Your task to perform on an android device: open app "PlayWell" Image 0: 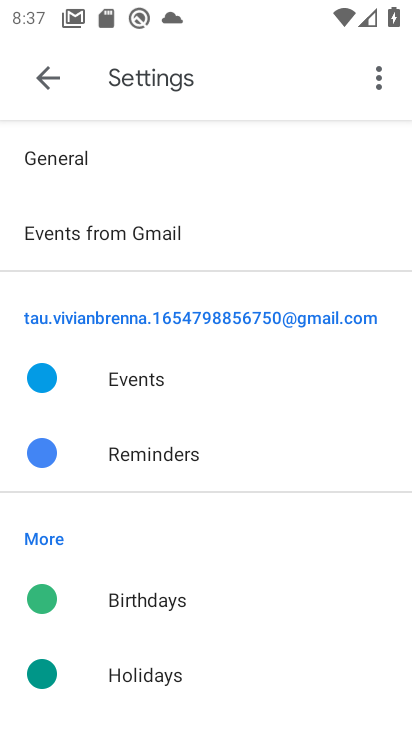
Step 0: press home button
Your task to perform on an android device: open app "PlayWell" Image 1: 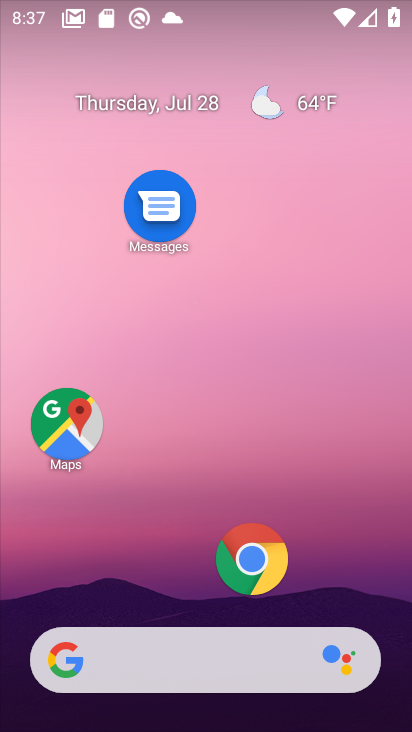
Step 1: drag from (184, 596) to (251, 35)
Your task to perform on an android device: open app "PlayWell" Image 2: 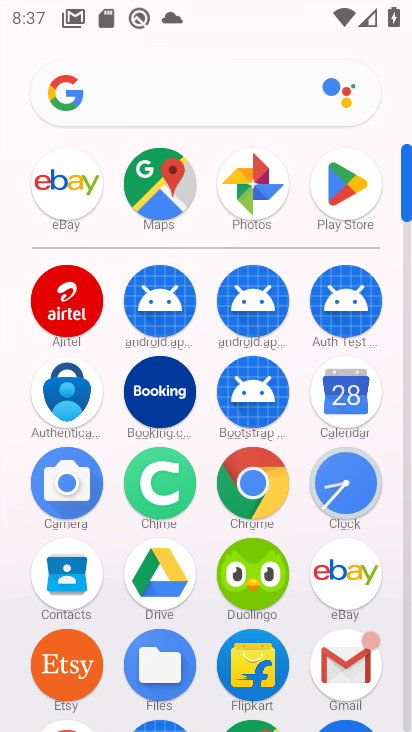
Step 2: click (351, 198)
Your task to perform on an android device: open app "PlayWell" Image 3: 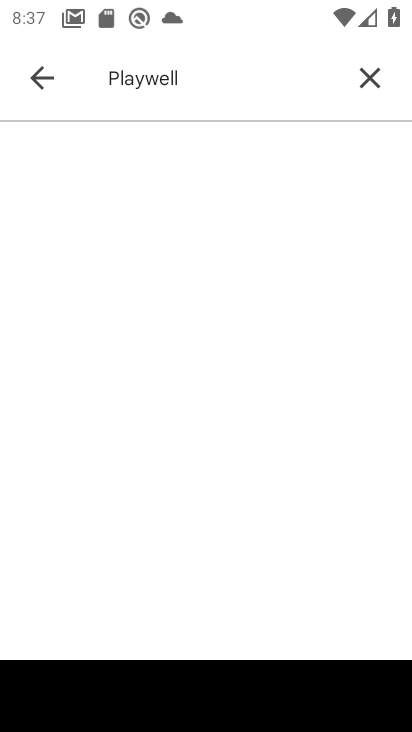
Step 3: click (215, 98)
Your task to perform on an android device: open app "PlayWell" Image 4: 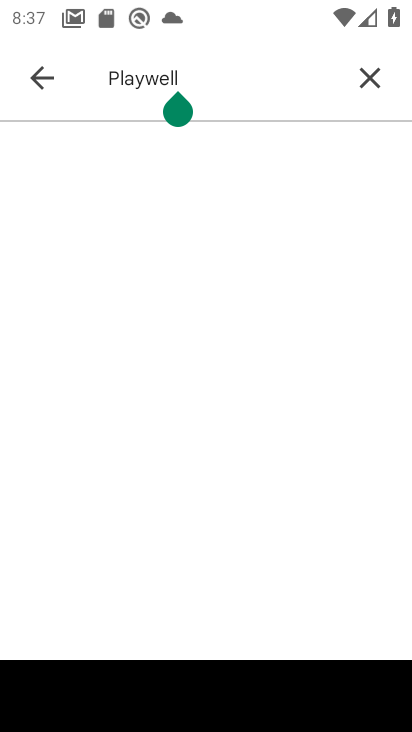
Step 4: click (371, 73)
Your task to perform on an android device: open app "PlayWell" Image 5: 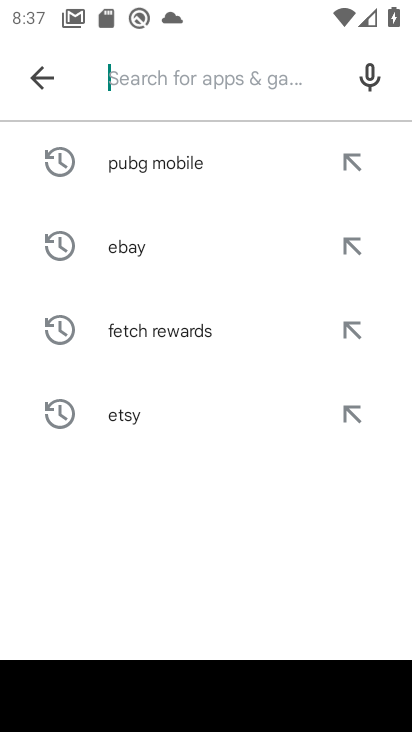
Step 5: click (46, 75)
Your task to perform on an android device: open app "PlayWell" Image 6: 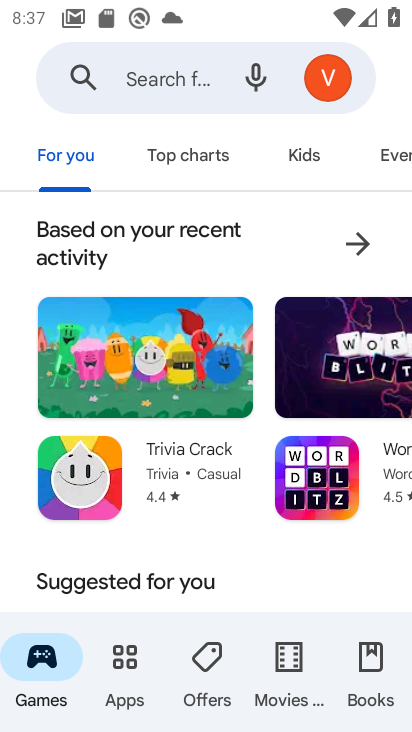
Step 6: click (118, 647)
Your task to perform on an android device: open app "PlayWell" Image 7: 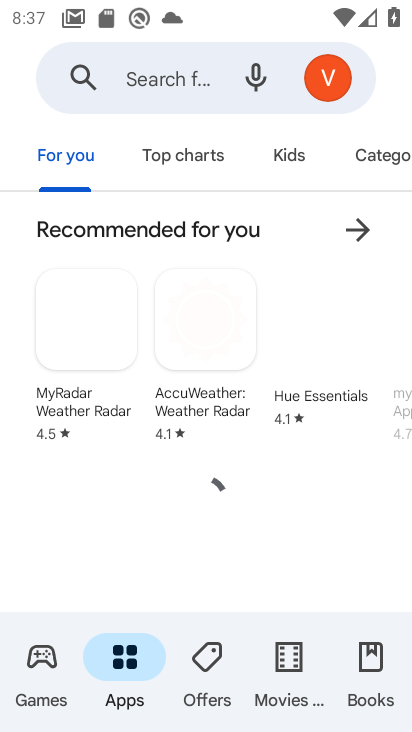
Step 7: click (154, 84)
Your task to perform on an android device: open app "PlayWell" Image 8: 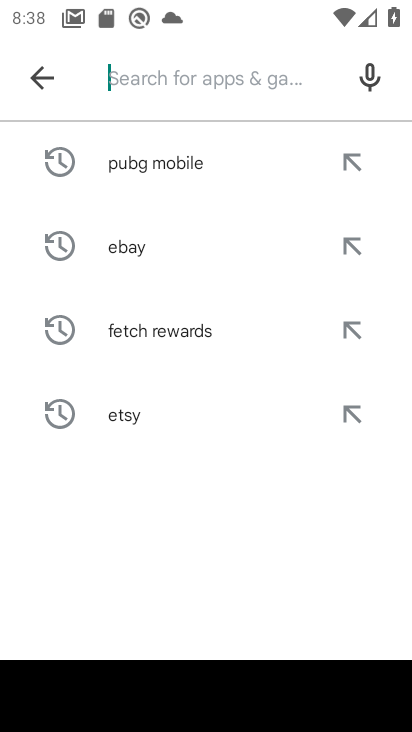
Step 8: type "PLaywell"
Your task to perform on an android device: open app "PlayWell" Image 9: 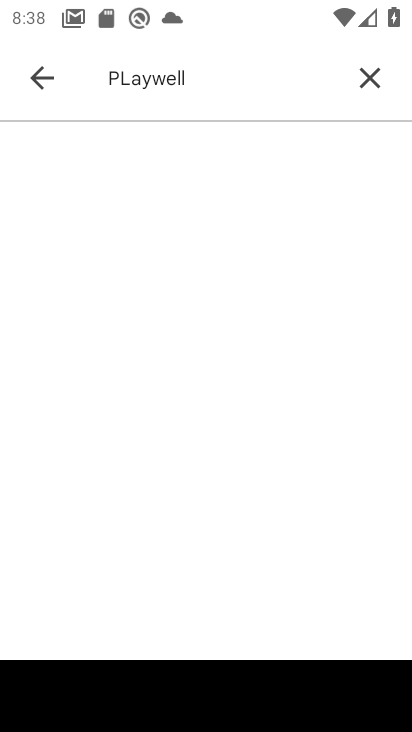
Step 9: click (153, 168)
Your task to perform on an android device: open app "PlayWell" Image 10: 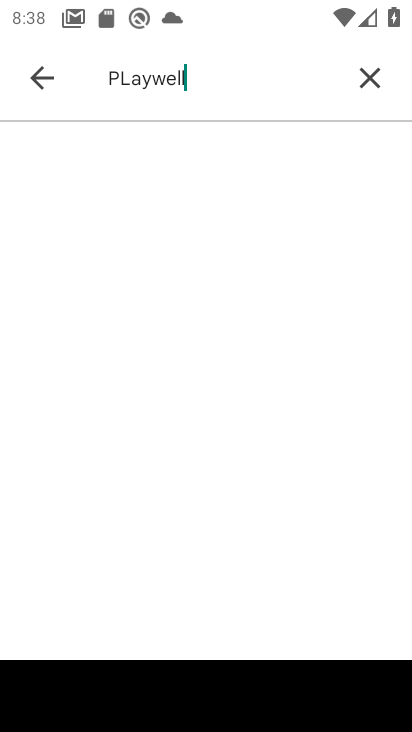
Step 10: click (363, 79)
Your task to perform on an android device: open app "PlayWell" Image 11: 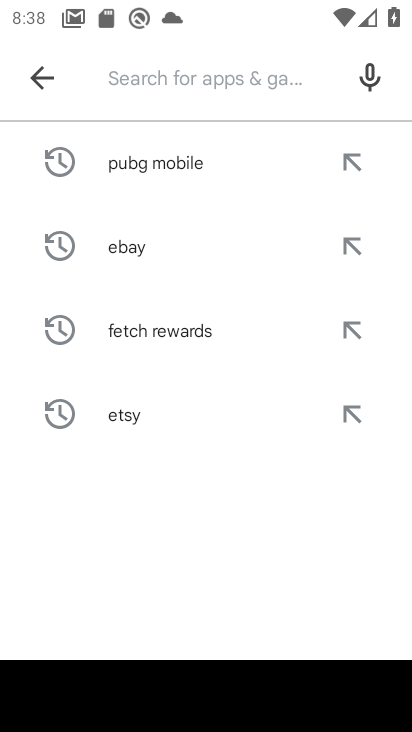
Step 11: click (32, 75)
Your task to perform on an android device: open app "PlayWell" Image 12: 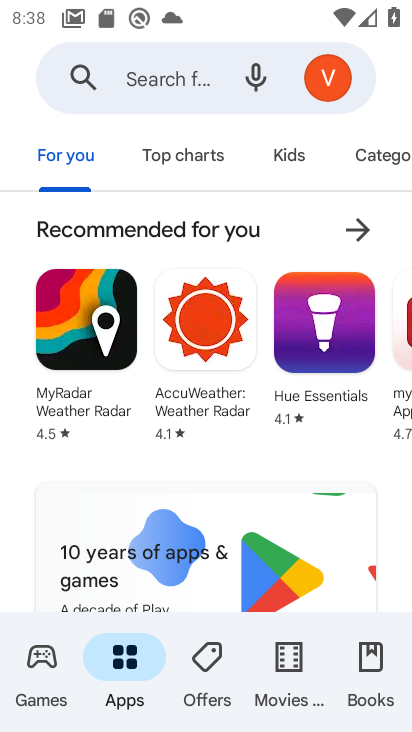
Step 12: task complete